Your task to perform on an android device: Open Android settings Image 0: 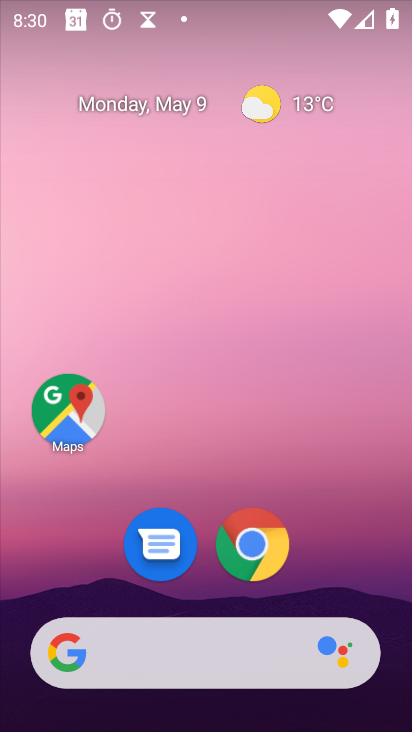
Step 0: drag from (383, 547) to (373, 172)
Your task to perform on an android device: Open Android settings Image 1: 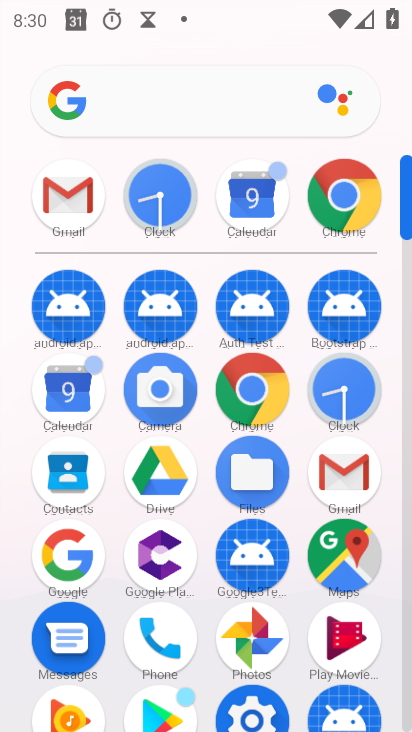
Step 1: drag from (395, 566) to (406, 178)
Your task to perform on an android device: Open Android settings Image 2: 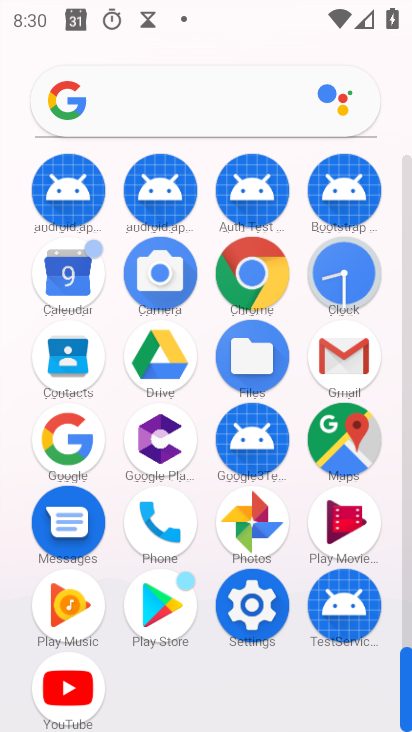
Step 2: click (253, 646)
Your task to perform on an android device: Open Android settings Image 3: 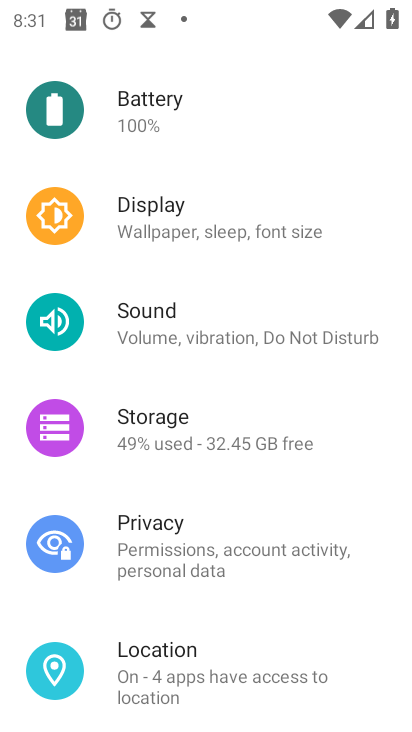
Step 3: task complete